Your task to perform on an android device: allow cookies in the chrome app Image 0: 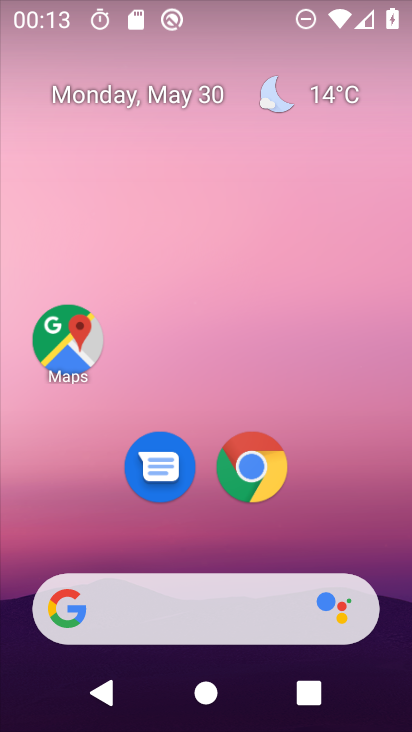
Step 0: click (250, 473)
Your task to perform on an android device: allow cookies in the chrome app Image 1: 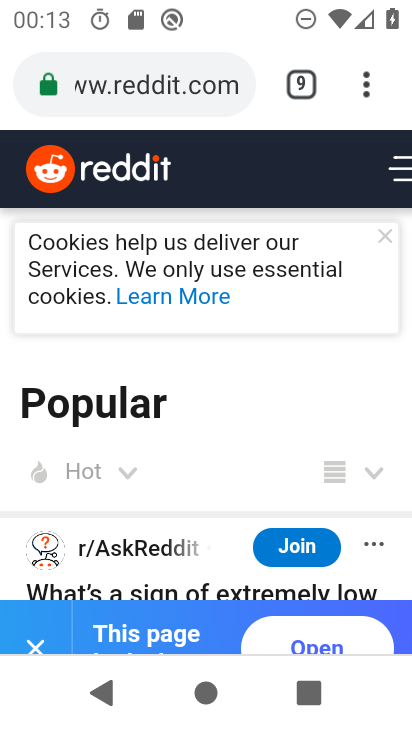
Step 1: drag from (362, 86) to (118, 527)
Your task to perform on an android device: allow cookies in the chrome app Image 2: 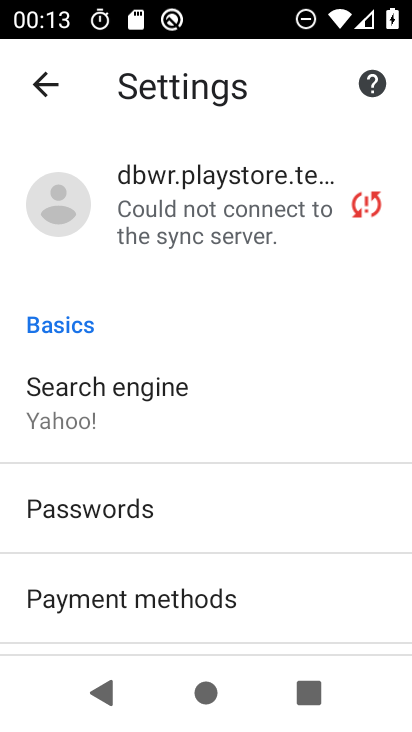
Step 2: drag from (142, 557) to (156, 289)
Your task to perform on an android device: allow cookies in the chrome app Image 3: 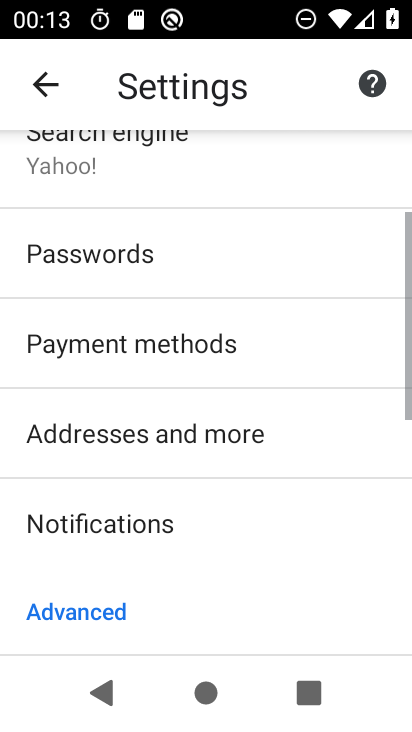
Step 3: drag from (155, 640) to (164, 334)
Your task to perform on an android device: allow cookies in the chrome app Image 4: 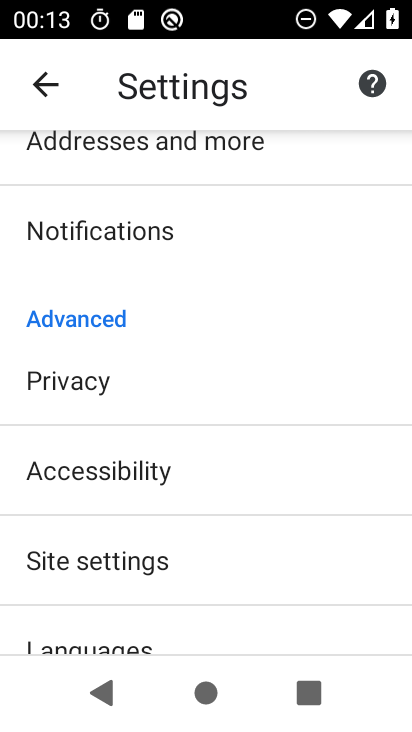
Step 4: click (145, 563)
Your task to perform on an android device: allow cookies in the chrome app Image 5: 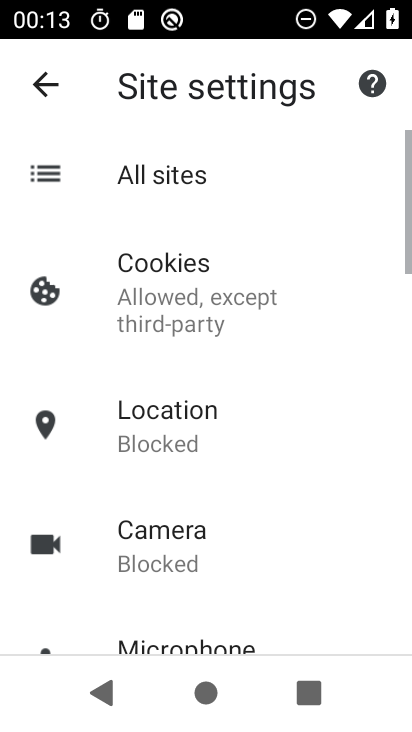
Step 5: click (139, 323)
Your task to perform on an android device: allow cookies in the chrome app Image 6: 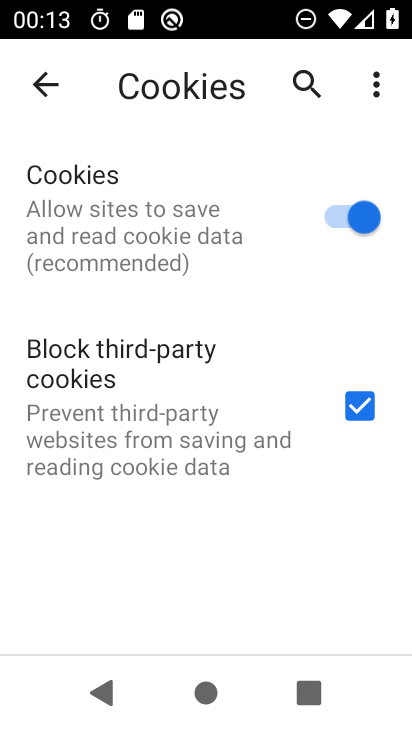
Step 6: task complete